Your task to perform on an android device: open a bookmark in the chrome app Image 0: 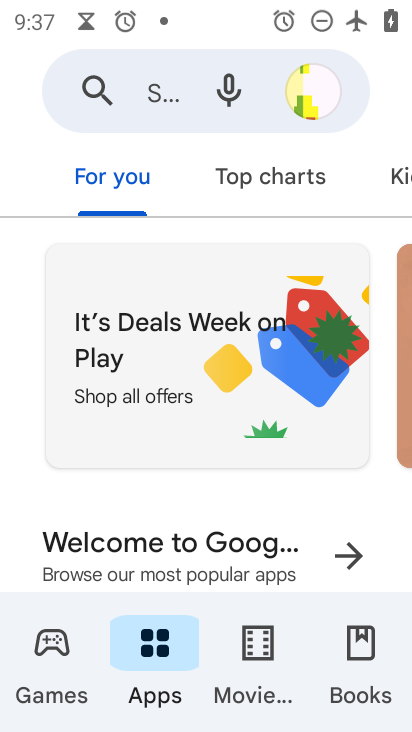
Step 0: press back button
Your task to perform on an android device: open a bookmark in the chrome app Image 1: 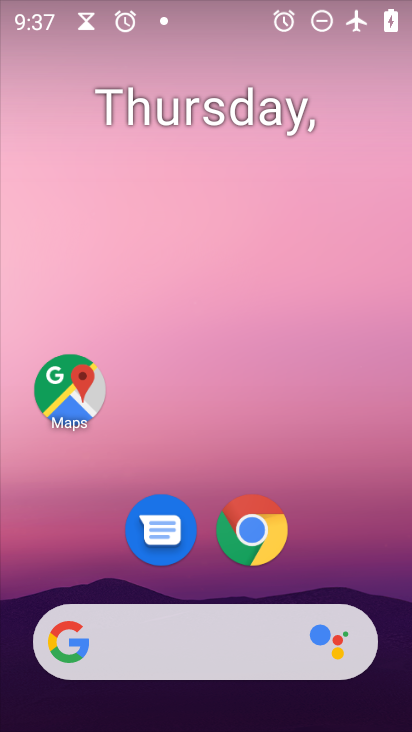
Step 1: drag from (337, 550) to (256, 7)
Your task to perform on an android device: open a bookmark in the chrome app Image 2: 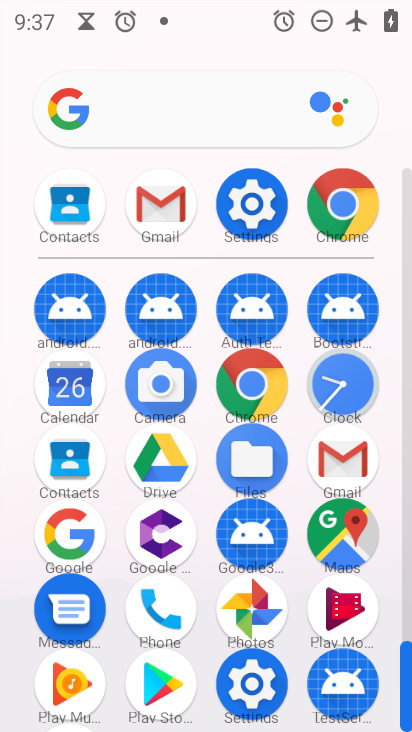
Step 2: drag from (17, 562) to (29, 237)
Your task to perform on an android device: open a bookmark in the chrome app Image 3: 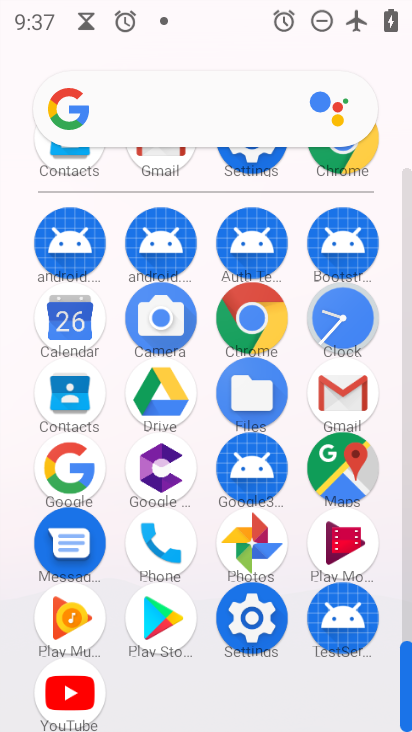
Step 3: click (246, 315)
Your task to perform on an android device: open a bookmark in the chrome app Image 4: 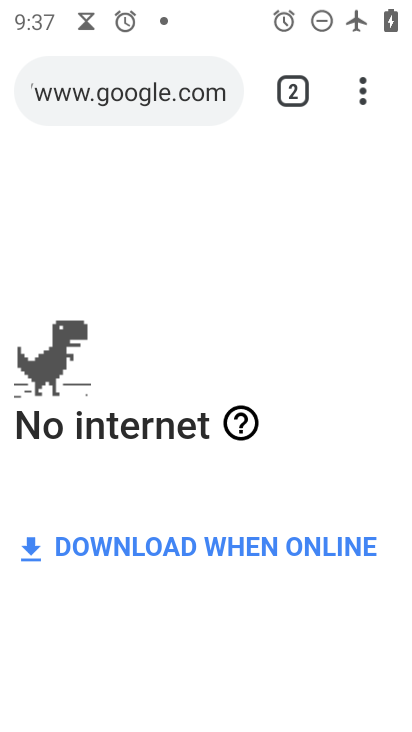
Step 4: drag from (364, 82) to (166, 341)
Your task to perform on an android device: open a bookmark in the chrome app Image 5: 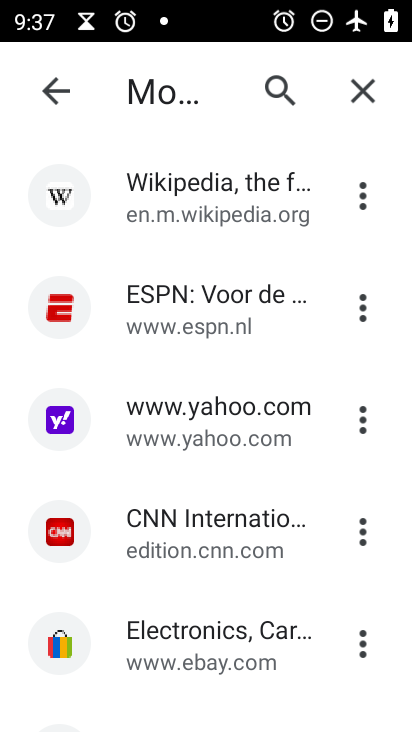
Step 5: click (194, 195)
Your task to perform on an android device: open a bookmark in the chrome app Image 6: 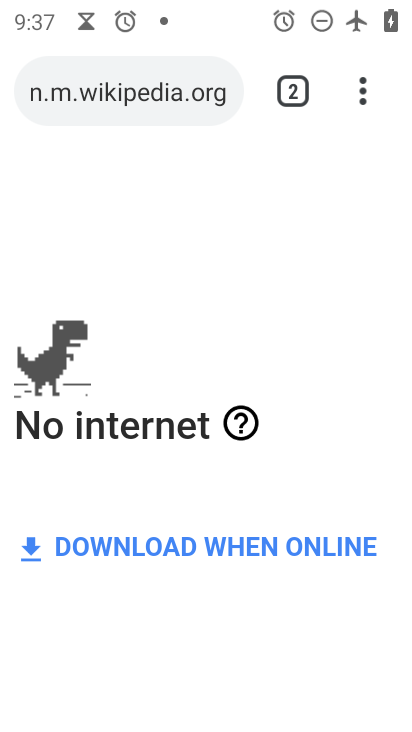
Step 6: task complete